Your task to perform on an android device: change notification settings in the gmail app Image 0: 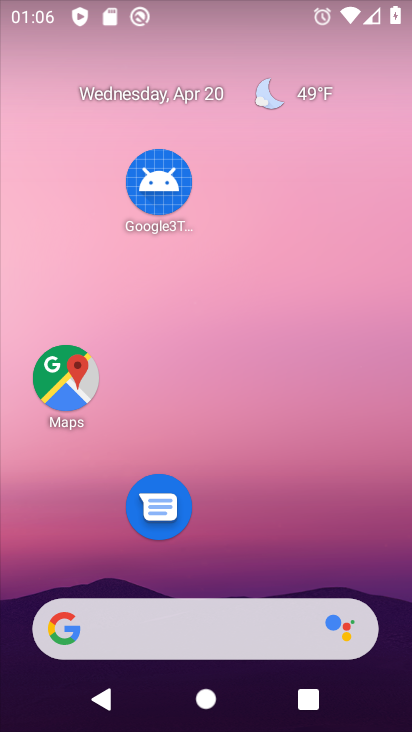
Step 0: drag from (257, 566) to (228, 4)
Your task to perform on an android device: change notification settings in the gmail app Image 1: 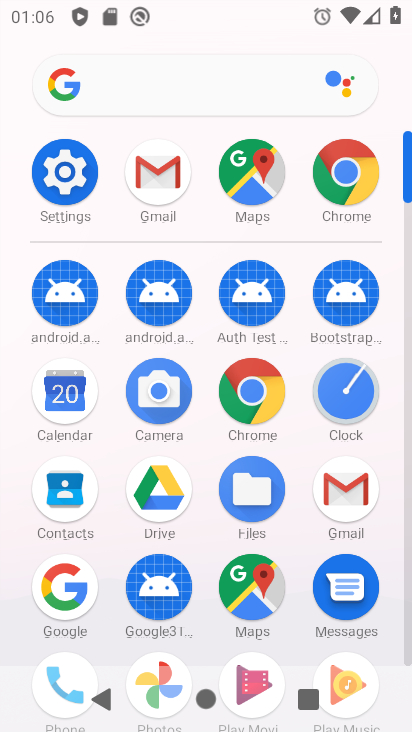
Step 1: click (152, 181)
Your task to perform on an android device: change notification settings in the gmail app Image 2: 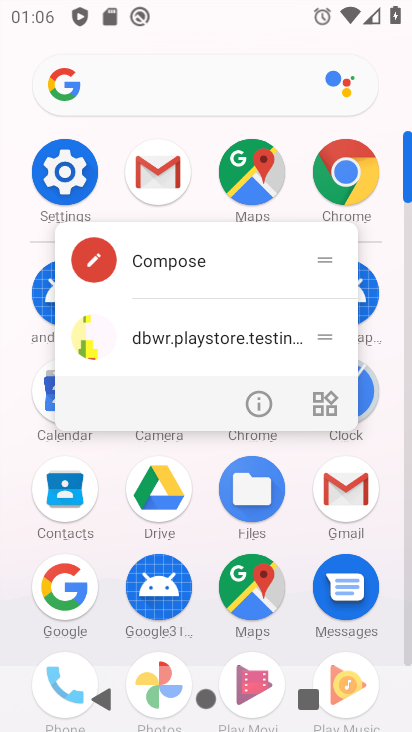
Step 2: click (158, 175)
Your task to perform on an android device: change notification settings in the gmail app Image 3: 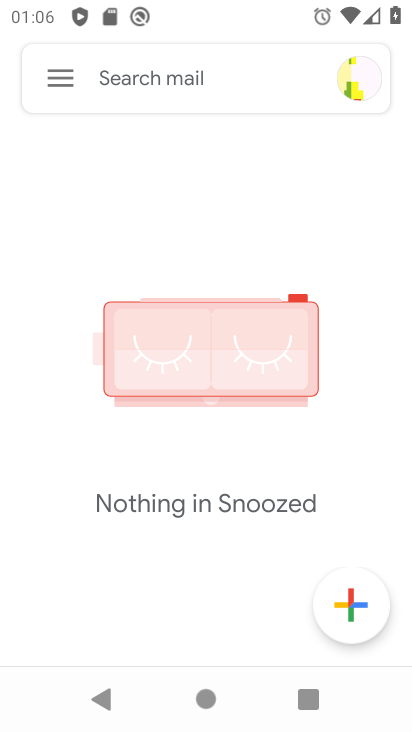
Step 3: click (60, 76)
Your task to perform on an android device: change notification settings in the gmail app Image 4: 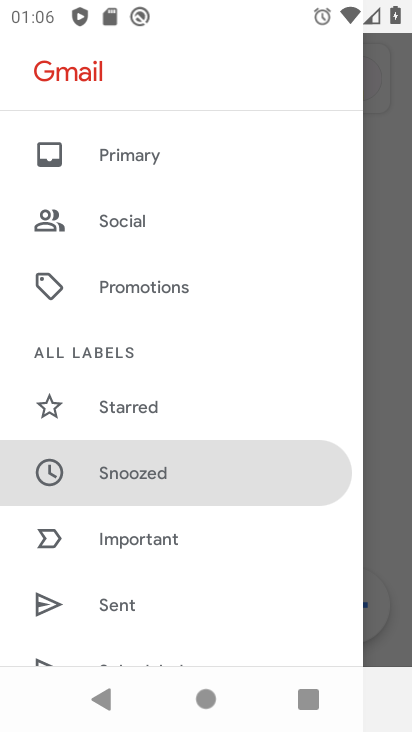
Step 4: drag from (198, 542) to (199, 9)
Your task to perform on an android device: change notification settings in the gmail app Image 5: 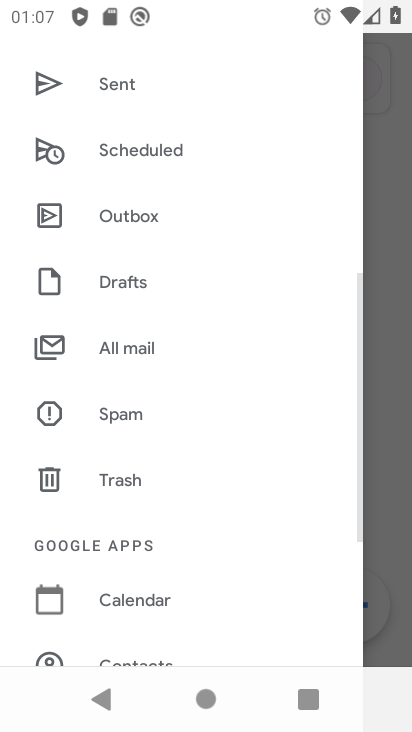
Step 5: drag from (178, 401) to (150, 20)
Your task to perform on an android device: change notification settings in the gmail app Image 6: 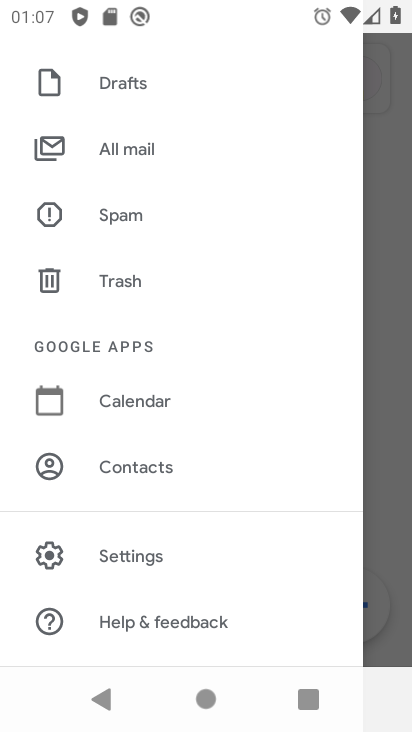
Step 6: drag from (186, 535) to (183, 39)
Your task to perform on an android device: change notification settings in the gmail app Image 7: 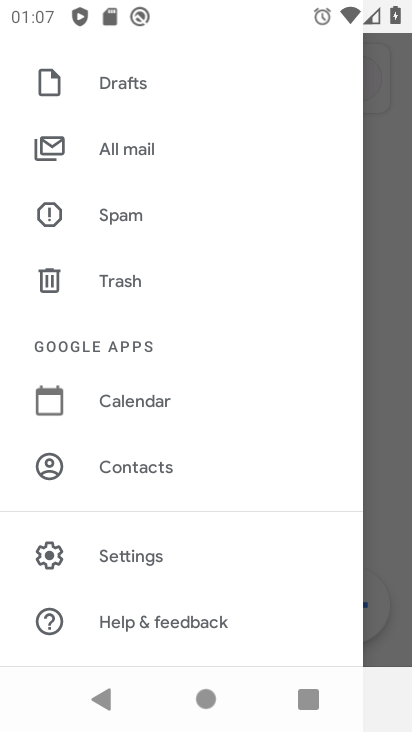
Step 7: click (117, 557)
Your task to perform on an android device: change notification settings in the gmail app Image 8: 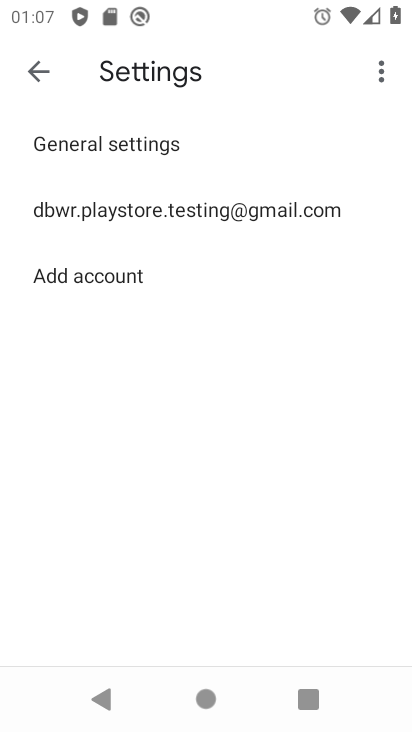
Step 8: click (125, 147)
Your task to perform on an android device: change notification settings in the gmail app Image 9: 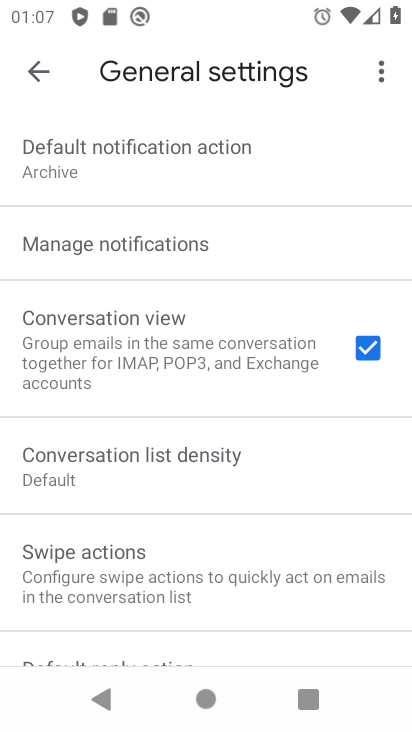
Step 9: click (166, 235)
Your task to perform on an android device: change notification settings in the gmail app Image 10: 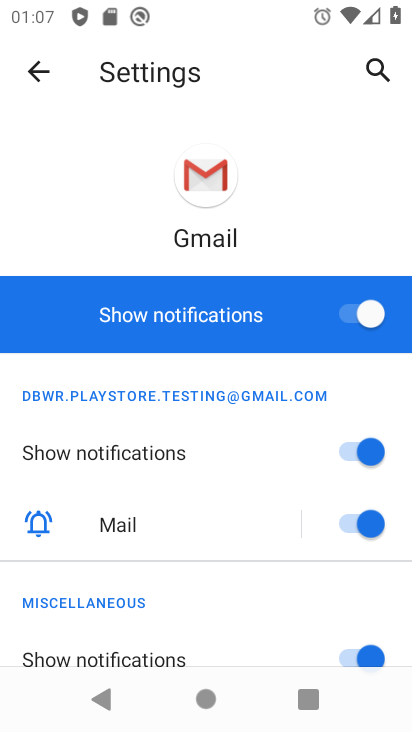
Step 10: click (359, 317)
Your task to perform on an android device: change notification settings in the gmail app Image 11: 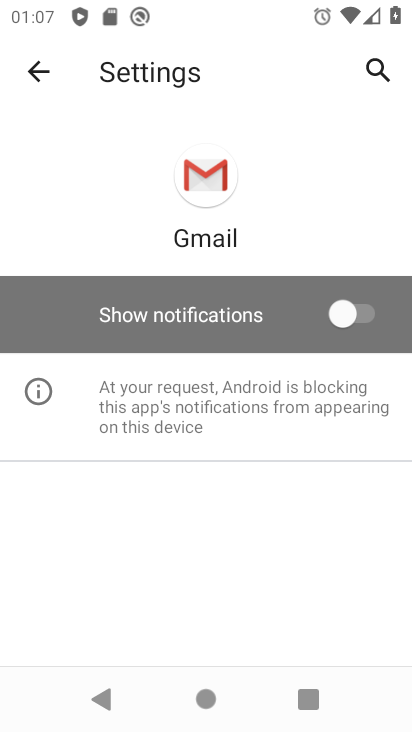
Step 11: task complete